Your task to perform on an android device: turn pop-ups off in chrome Image 0: 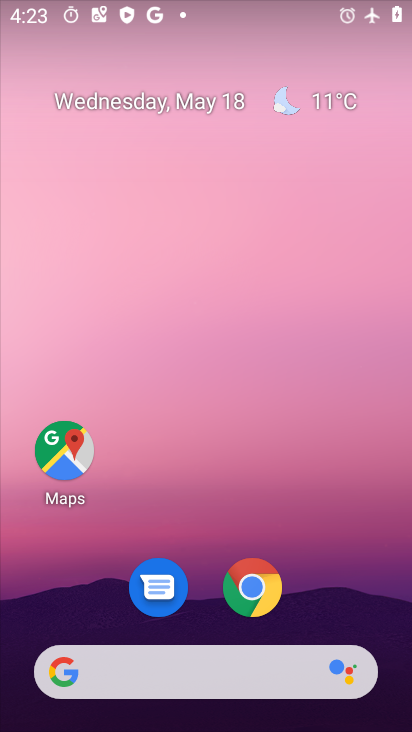
Step 0: drag from (208, 655) to (322, 60)
Your task to perform on an android device: turn pop-ups off in chrome Image 1: 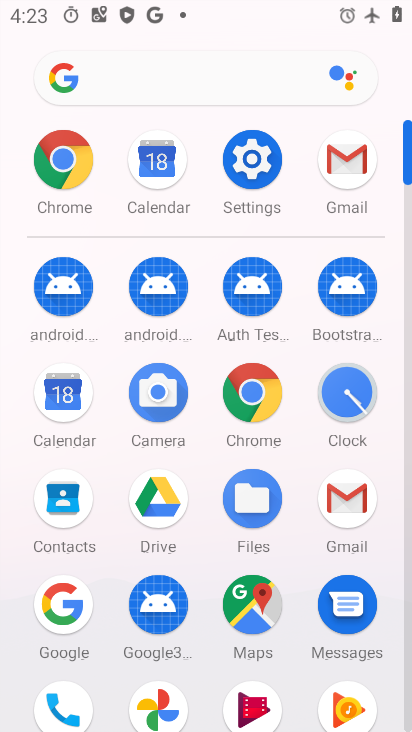
Step 1: click (254, 405)
Your task to perform on an android device: turn pop-ups off in chrome Image 2: 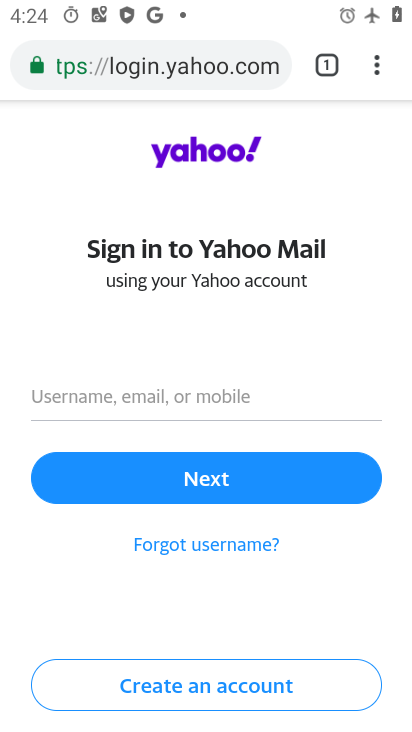
Step 2: click (367, 60)
Your task to perform on an android device: turn pop-ups off in chrome Image 3: 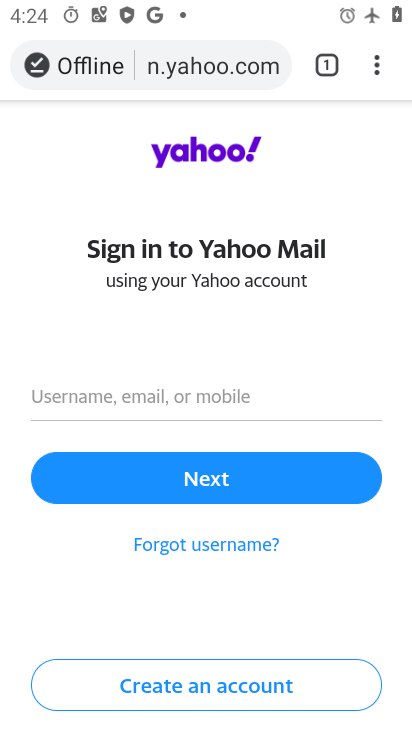
Step 3: click (378, 70)
Your task to perform on an android device: turn pop-ups off in chrome Image 4: 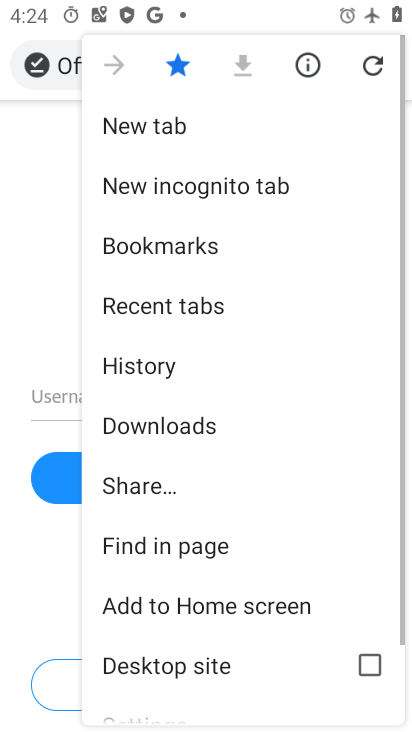
Step 4: drag from (238, 577) to (337, 131)
Your task to perform on an android device: turn pop-ups off in chrome Image 5: 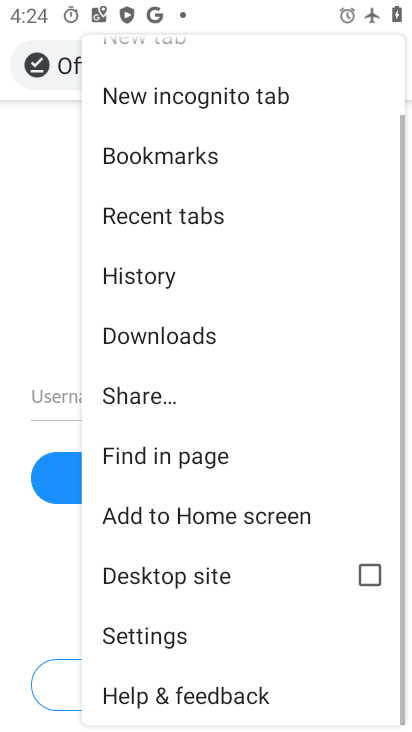
Step 5: click (165, 648)
Your task to perform on an android device: turn pop-ups off in chrome Image 6: 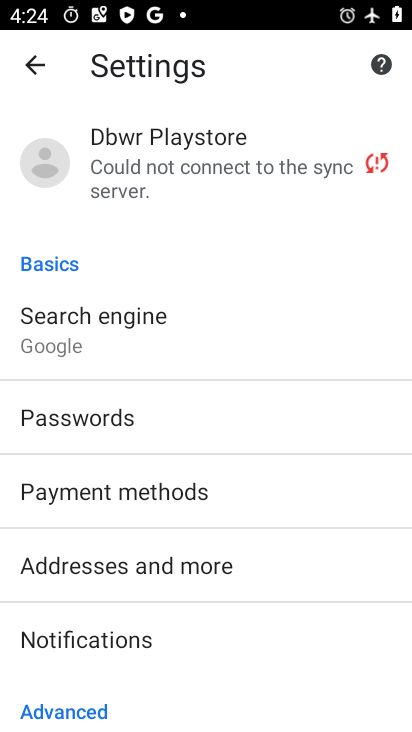
Step 6: drag from (174, 634) to (179, 334)
Your task to perform on an android device: turn pop-ups off in chrome Image 7: 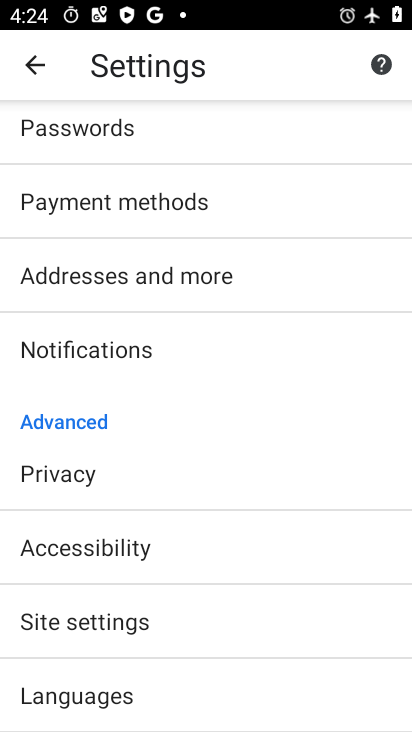
Step 7: drag from (131, 573) to (197, 356)
Your task to perform on an android device: turn pop-ups off in chrome Image 8: 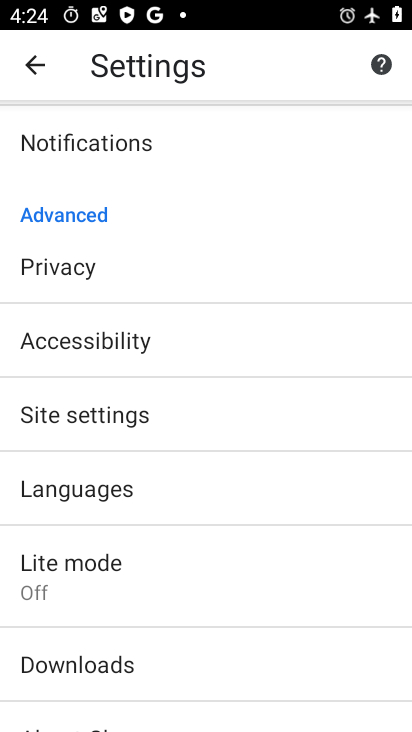
Step 8: drag from (125, 556) to (184, 348)
Your task to perform on an android device: turn pop-ups off in chrome Image 9: 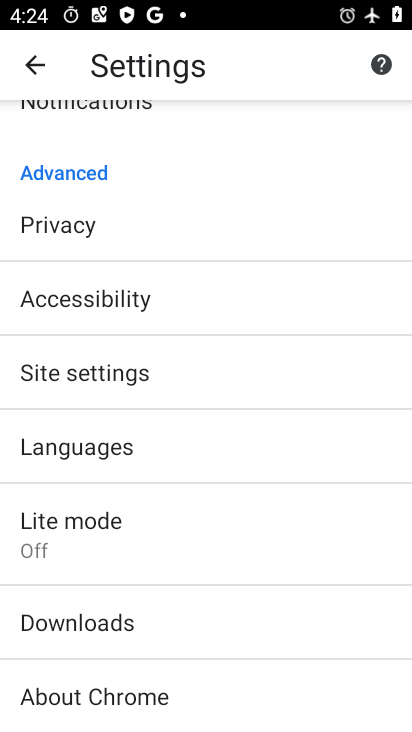
Step 9: click (136, 385)
Your task to perform on an android device: turn pop-ups off in chrome Image 10: 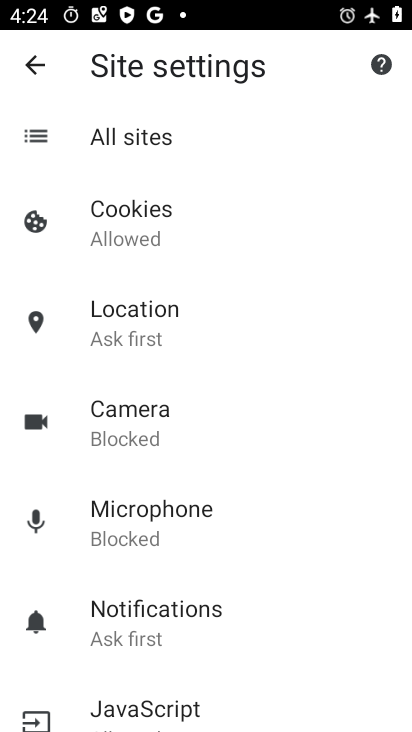
Step 10: drag from (159, 636) to (204, 403)
Your task to perform on an android device: turn pop-ups off in chrome Image 11: 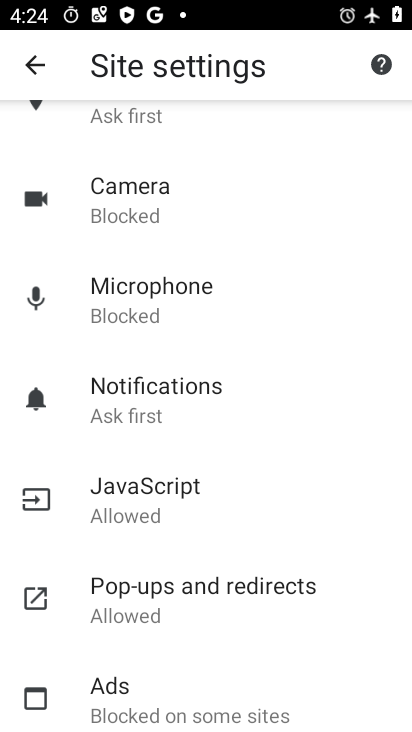
Step 11: click (162, 591)
Your task to perform on an android device: turn pop-ups off in chrome Image 12: 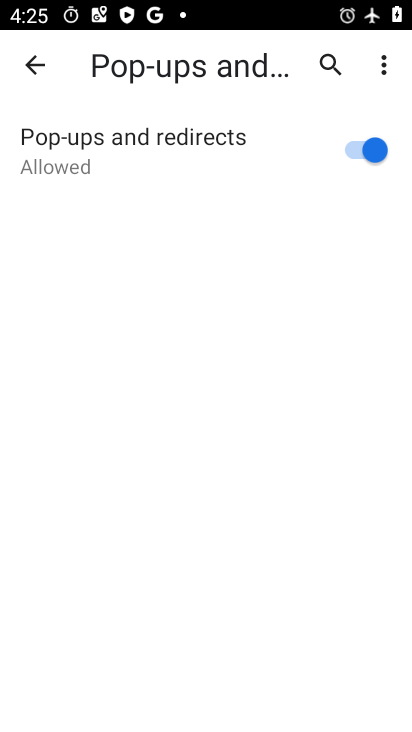
Step 12: click (352, 157)
Your task to perform on an android device: turn pop-ups off in chrome Image 13: 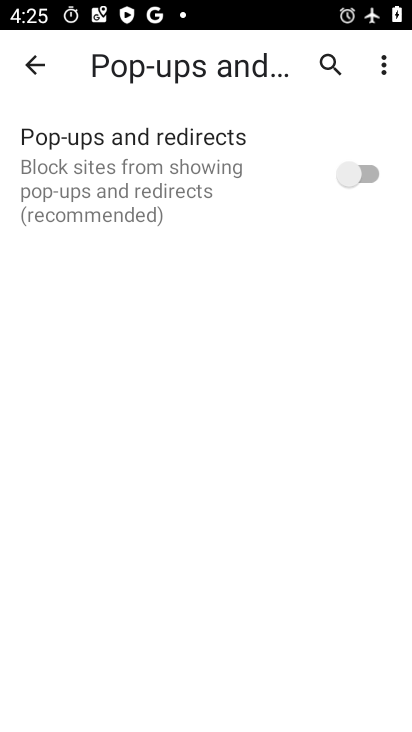
Step 13: task complete